Your task to perform on an android device: find photos in the google photos app Image 0: 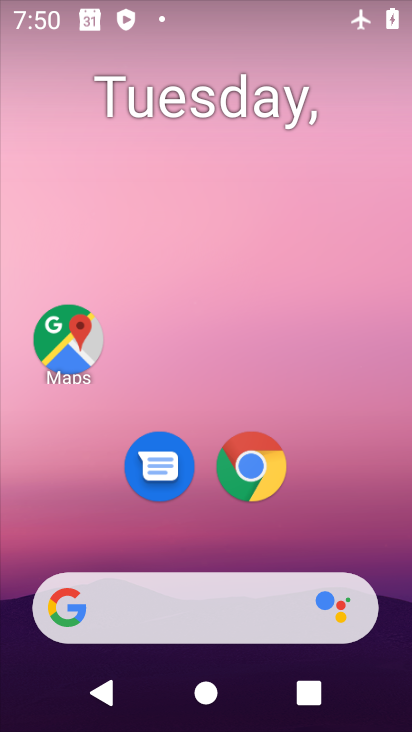
Step 0: drag from (20, 623) to (315, 108)
Your task to perform on an android device: find photos in the google photos app Image 1: 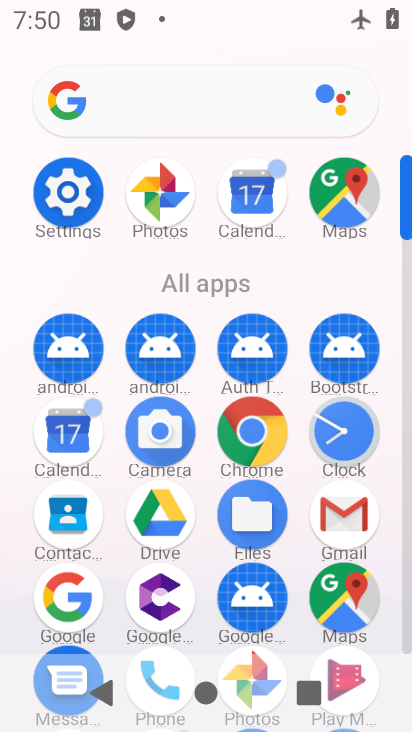
Step 1: click (174, 216)
Your task to perform on an android device: find photos in the google photos app Image 2: 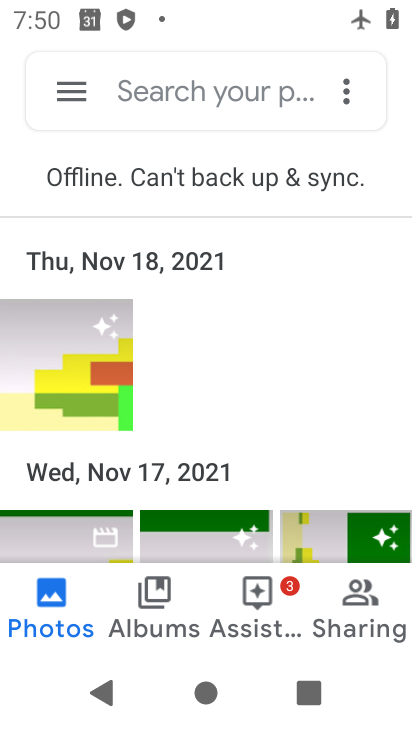
Step 2: click (167, 189)
Your task to perform on an android device: find photos in the google photos app Image 3: 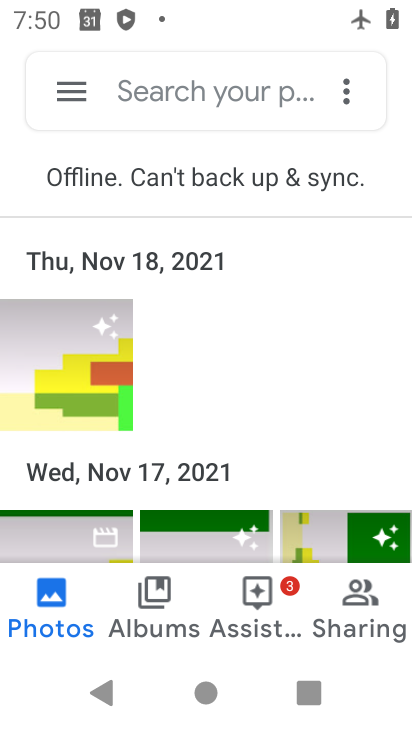
Step 3: task complete